Your task to perform on an android device: Open wifi settings Image 0: 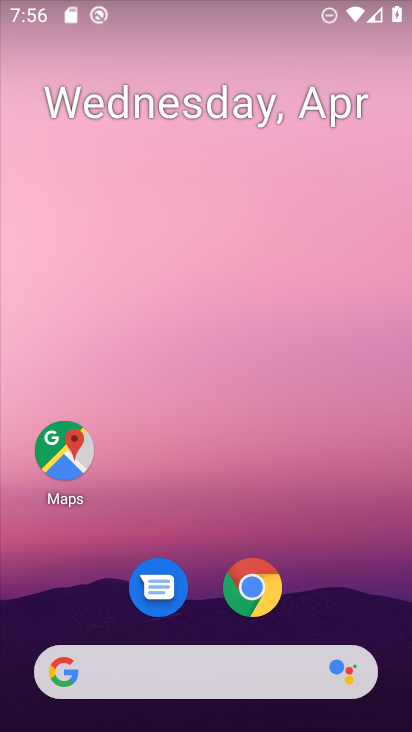
Step 0: drag from (320, 0) to (309, 536)
Your task to perform on an android device: Open wifi settings Image 1: 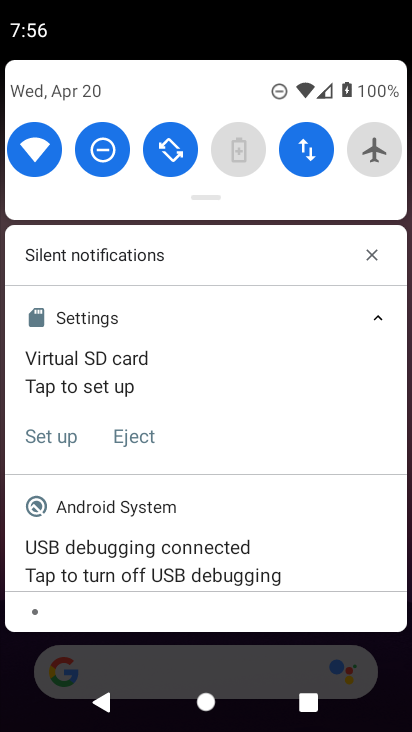
Step 1: click (40, 146)
Your task to perform on an android device: Open wifi settings Image 2: 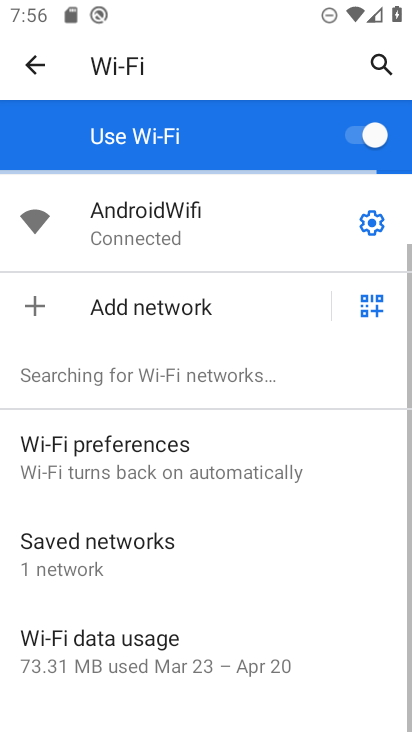
Step 2: task complete